Your task to perform on an android device: star an email in the gmail app Image 0: 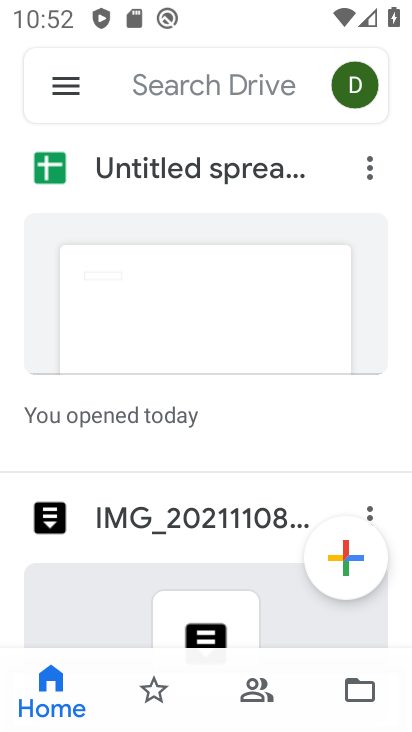
Step 0: press home button
Your task to perform on an android device: star an email in the gmail app Image 1: 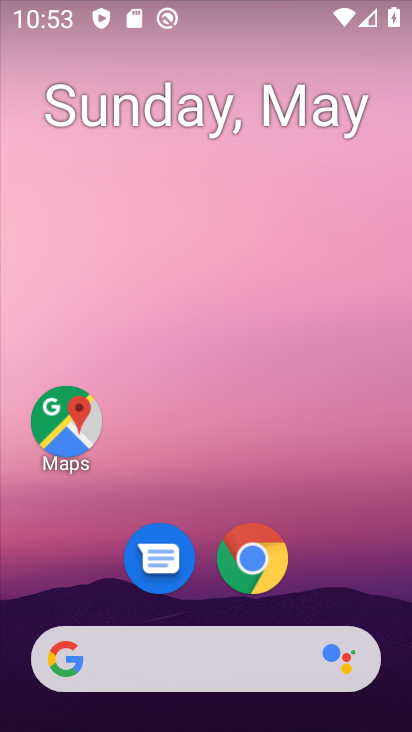
Step 1: drag from (367, 573) to (389, 134)
Your task to perform on an android device: star an email in the gmail app Image 2: 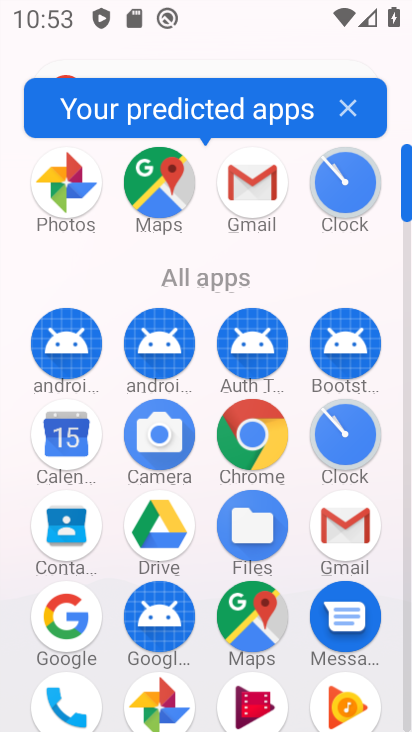
Step 2: click (367, 528)
Your task to perform on an android device: star an email in the gmail app Image 3: 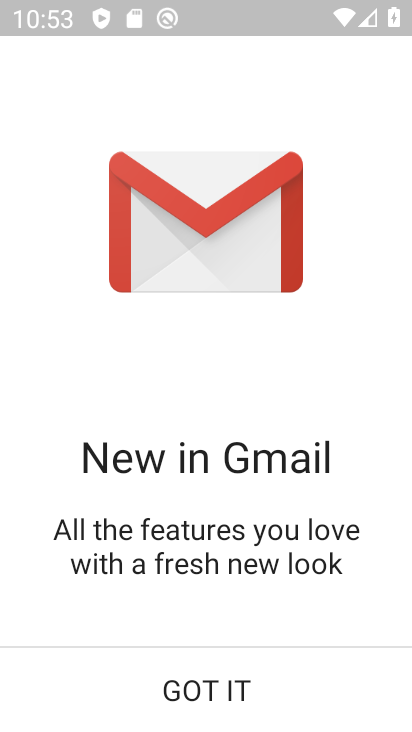
Step 3: click (215, 678)
Your task to perform on an android device: star an email in the gmail app Image 4: 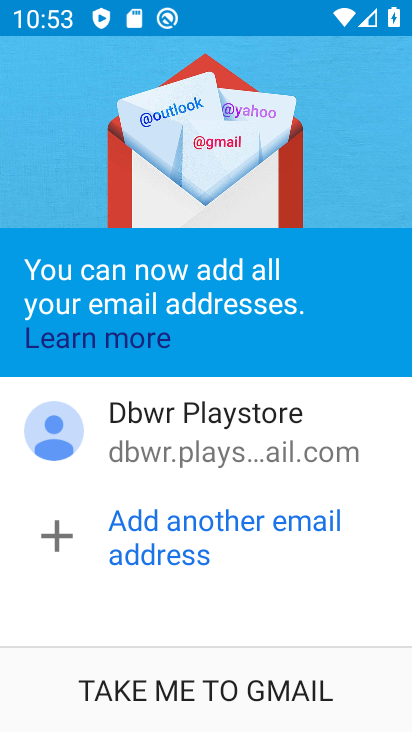
Step 4: click (296, 689)
Your task to perform on an android device: star an email in the gmail app Image 5: 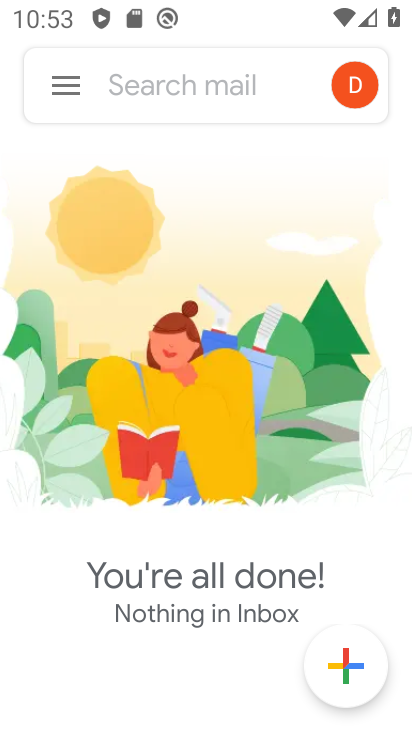
Step 5: click (66, 92)
Your task to perform on an android device: star an email in the gmail app Image 6: 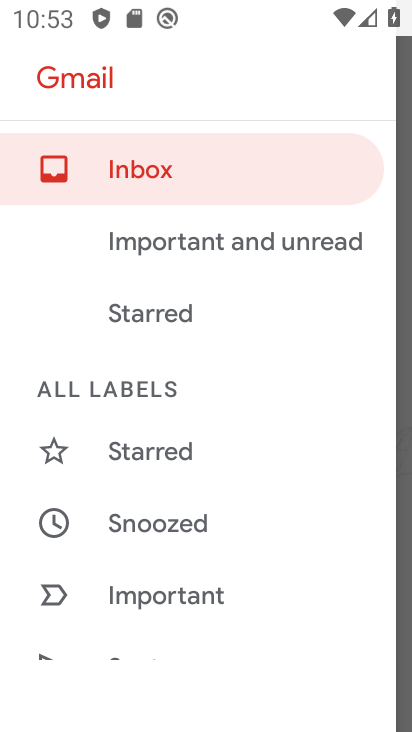
Step 6: drag from (314, 651) to (343, 411)
Your task to perform on an android device: star an email in the gmail app Image 7: 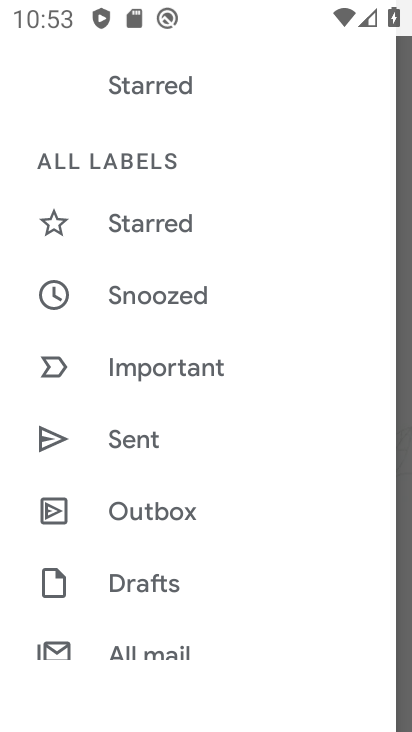
Step 7: drag from (326, 645) to (332, 407)
Your task to perform on an android device: star an email in the gmail app Image 8: 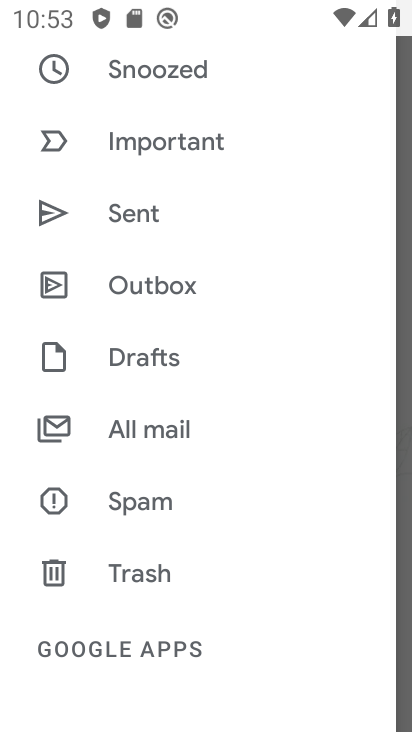
Step 8: drag from (326, 171) to (293, 490)
Your task to perform on an android device: star an email in the gmail app Image 9: 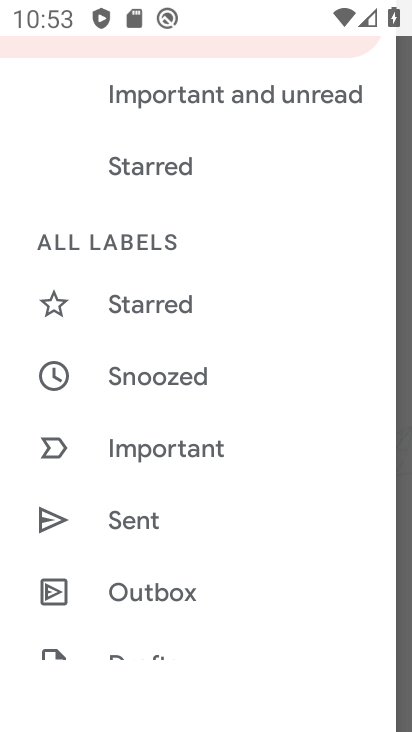
Step 9: drag from (328, 218) to (302, 461)
Your task to perform on an android device: star an email in the gmail app Image 10: 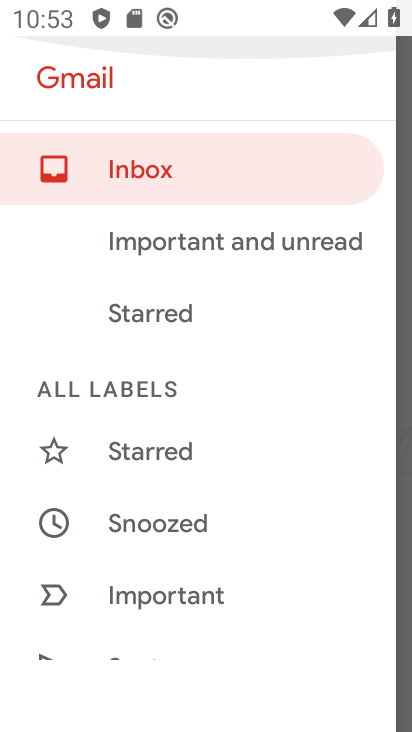
Step 10: click (162, 166)
Your task to perform on an android device: star an email in the gmail app Image 11: 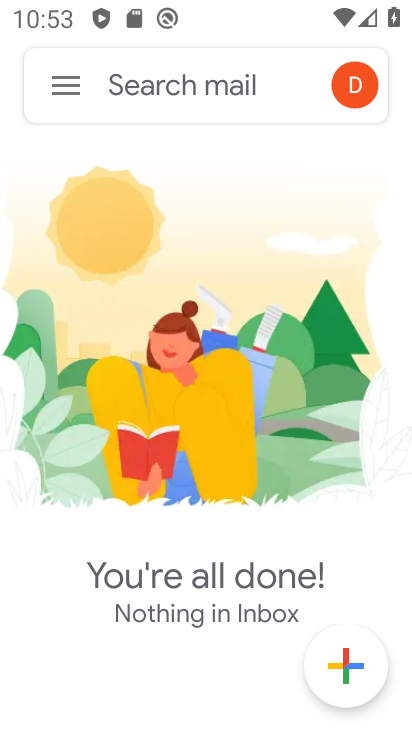
Step 11: task complete